Your task to perform on an android device: Open calendar and show me the second week of next month Image 0: 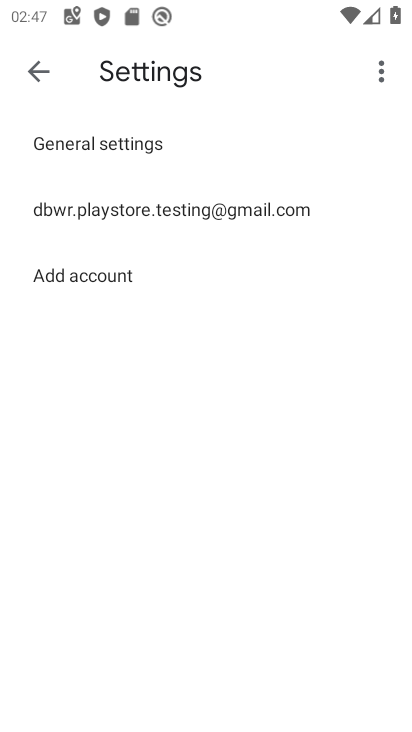
Step 0: press home button
Your task to perform on an android device: Open calendar and show me the second week of next month Image 1: 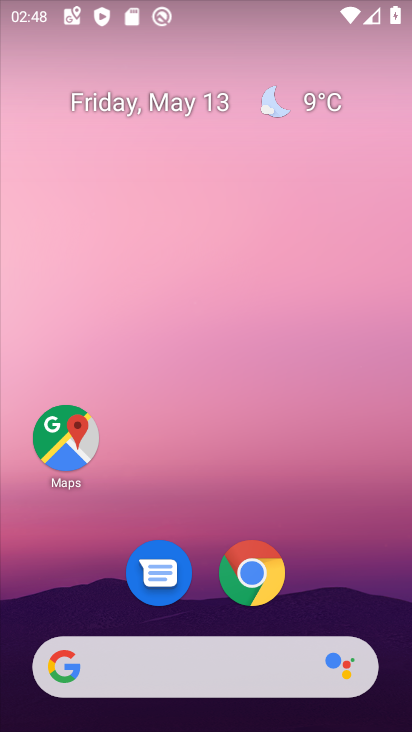
Step 1: drag from (311, 599) to (265, 28)
Your task to perform on an android device: Open calendar and show me the second week of next month Image 2: 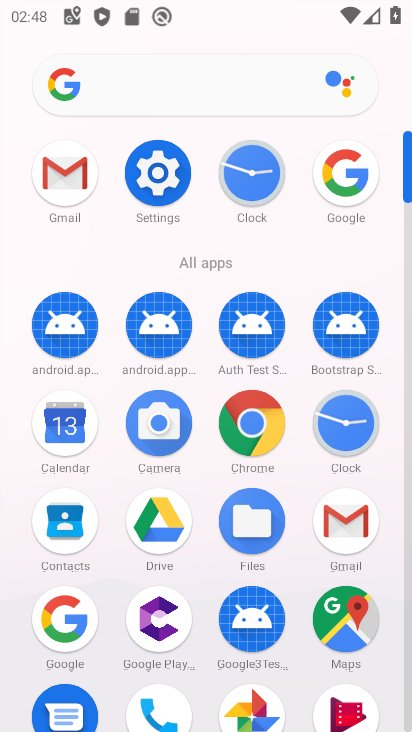
Step 2: click (69, 425)
Your task to perform on an android device: Open calendar and show me the second week of next month Image 3: 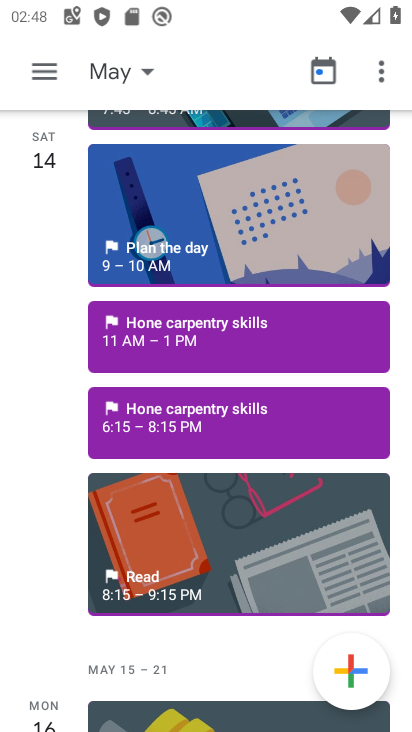
Step 3: click (149, 77)
Your task to perform on an android device: Open calendar and show me the second week of next month Image 4: 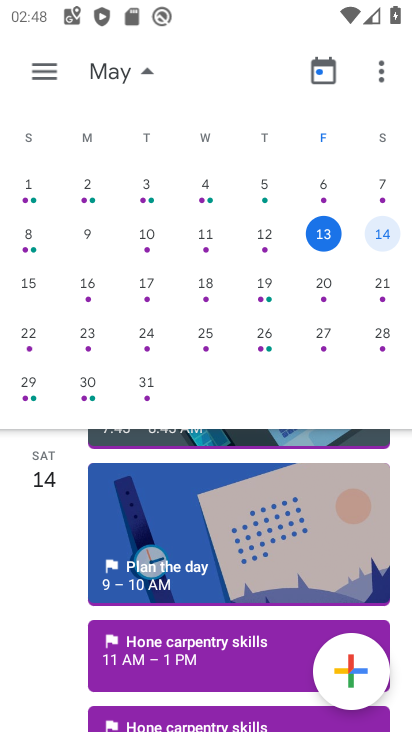
Step 4: drag from (365, 257) to (8, 268)
Your task to perform on an android device: Open calendar and show me the second week of next month Image 5: 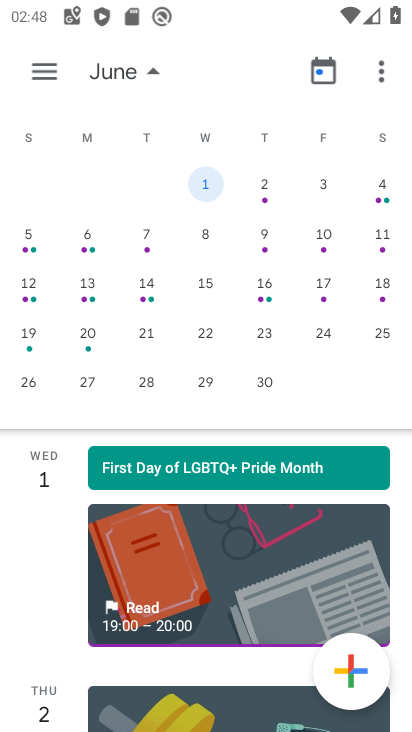
Step 5: click (96, 292)
Your task to perform on an android device: Open calendar and show me the second week of next month Image 6: 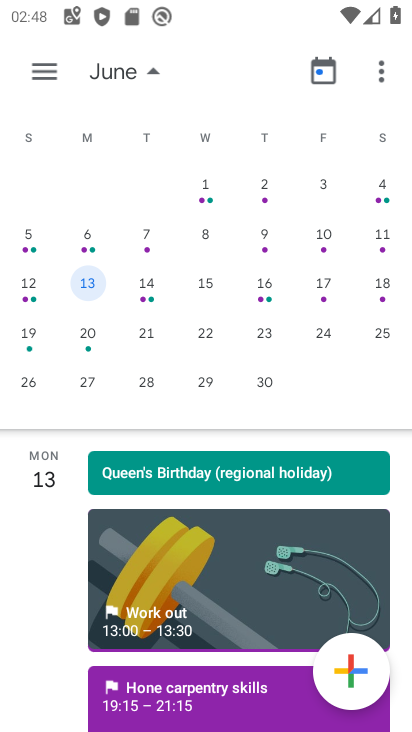
Step 6: click (39, 61)
Your task to perform on an android device: Open calendar and show me the second week of next month Image 7: 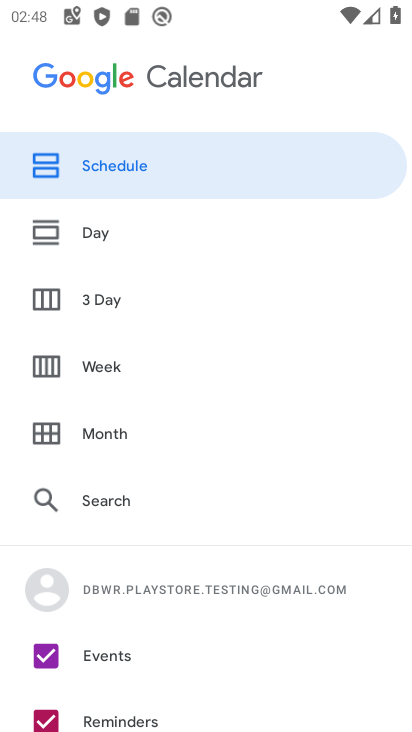
Step 7: click (100, 360)
Your task to perform on an android device: Open calendar and show me the second week of next month Image 8: 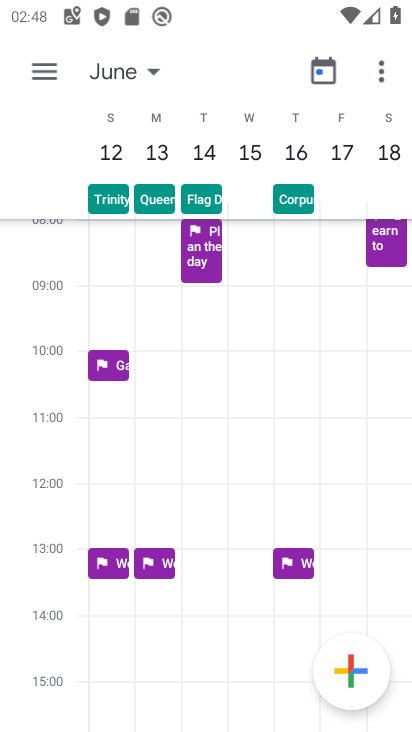
Step 8: task complete